Your task to perform on an android device: Turn off the flashlight Image 0: 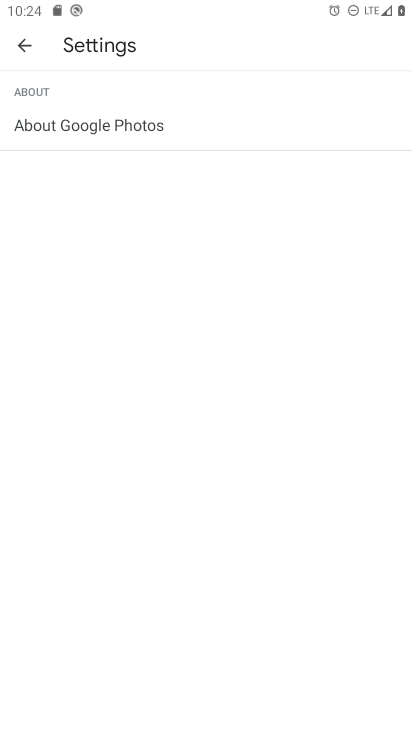
Step 0: press home button
Your task to perform on an android device: Turn off the flashlight Image 1: 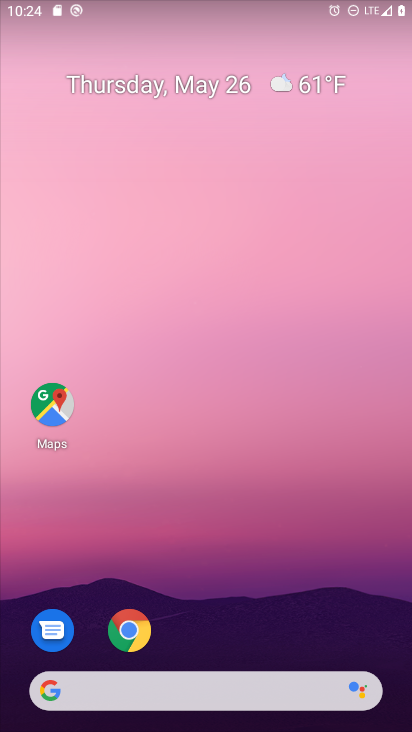
Step 1: drag from (206, 652) to (186, 0)
Your task to perform on an android device: Turn off the flashlight Image 2: 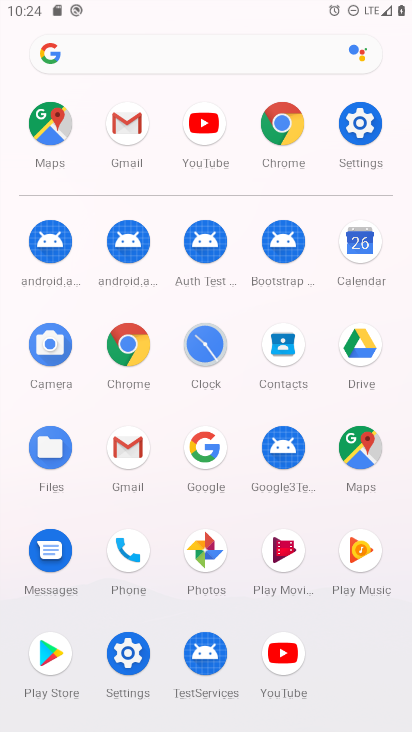
Step 2: click (360, 181)
Your task to perform on an android device: Turn off the flashlight Image 3: 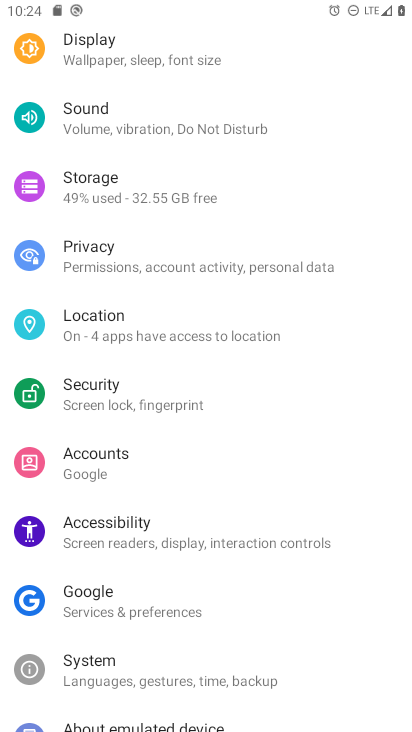
Step 3: click (360, 181)
Your task to perform on an android device: Turn off the flashlight Image 4: 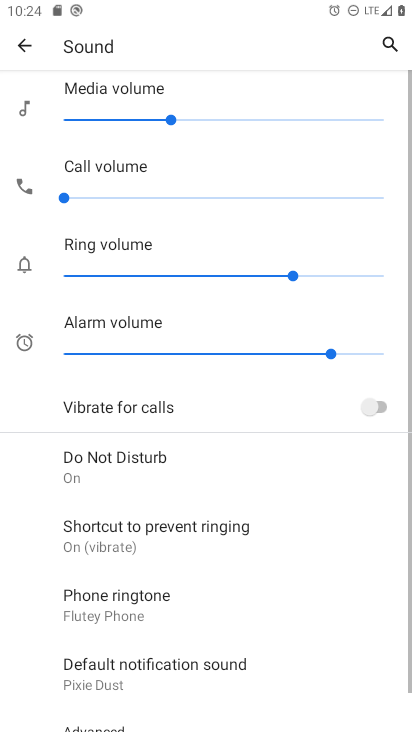
Step 4: drag from (322, 128) to (222, 431)
Your task to perform on an android device: Turn off the flashlight Image 5: 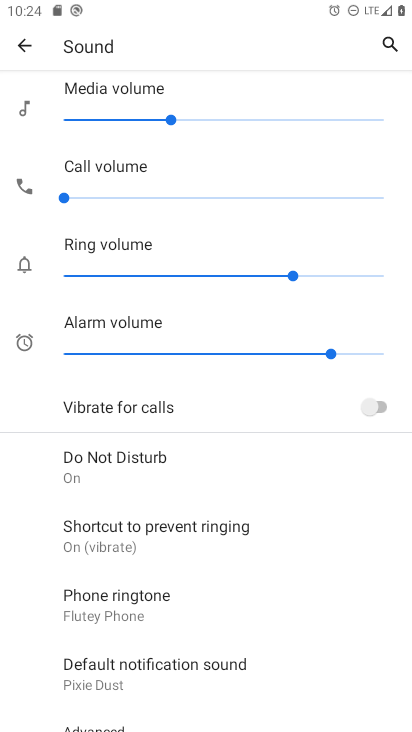
Step 5: click (27, 43)
Your task to perform on an android device: Turn off the flashlight Image 6: 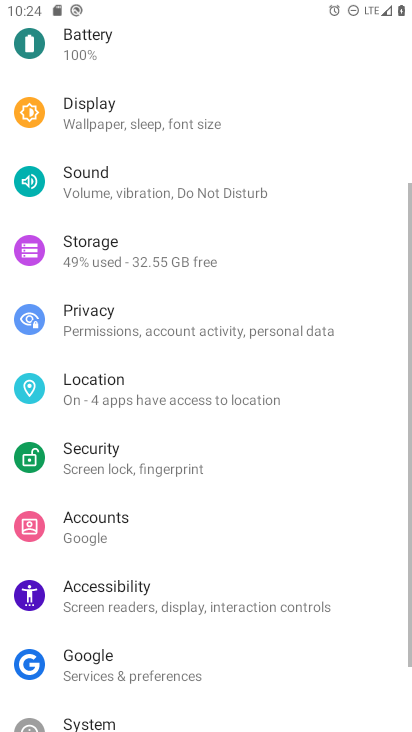
Step 6: drag from (140, 56) to (56, 552)
Your task to perform on an android device: Turn off the flashlight Image 7: 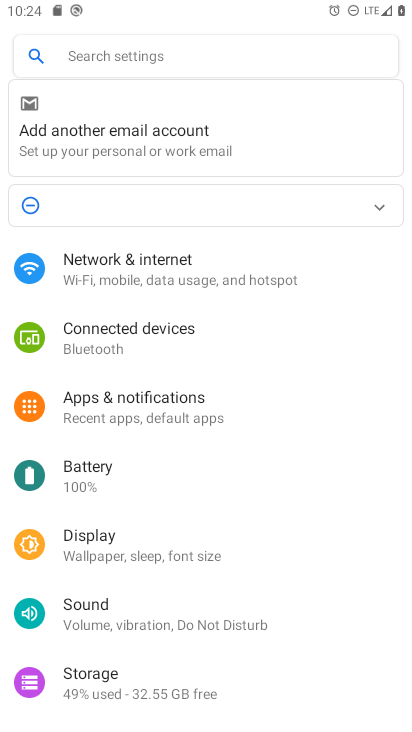
Step 7: click (172, 55)
Your task to perform on an android device: Turn off the flashlight Image 8: 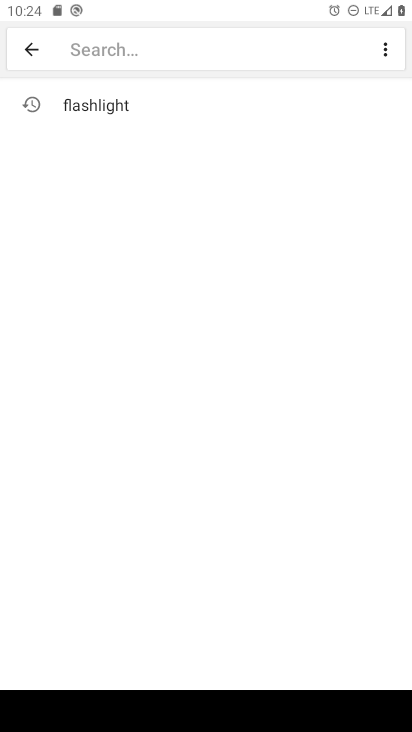
Step 8: click (66, 87)
Your task to perform on an android device: Turn off the flashlight Image 9: 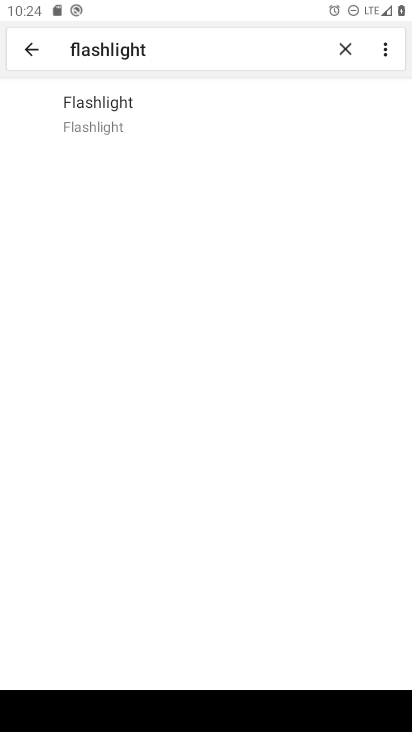
Step 9: task complete